Your task to perform on an android device: Open Google Chrome and open the bookmarks view Image 0: 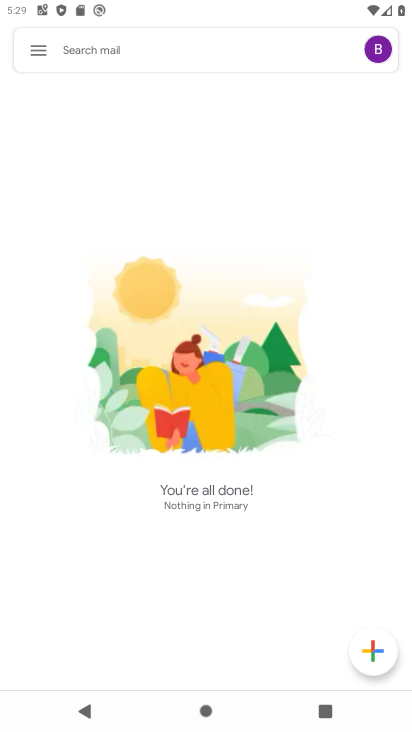
Step 0: press back button
Your task to perform on an android device: Open Google Chrome and open the bookmarks view Image 1: 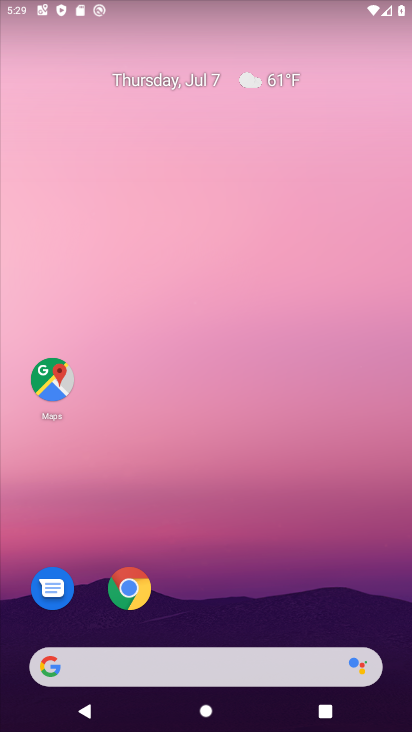
Step 1: click (116, 586)
Your task to perform on an android device: Open Google Chrome and open the bookmarks view Image 2: 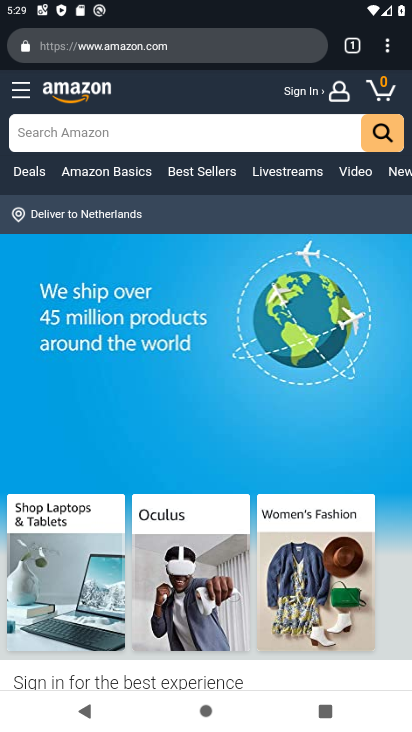
Step 2: task complete